Your task to perform on an android device: install app "Microsoft Excel" Image 0: 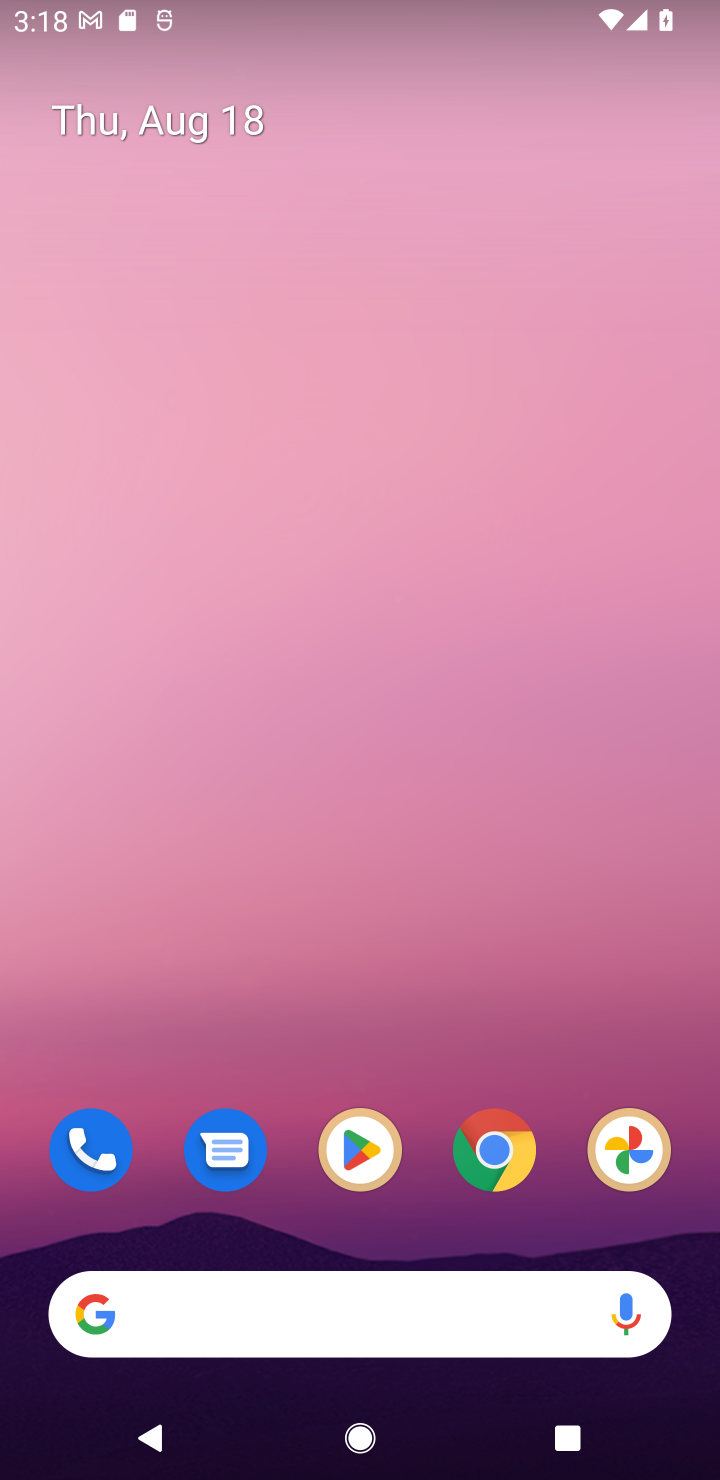
Step 0: click (359, 1144)
Your task to perform on an android device: install app "Microsoft Excel" Image 1: 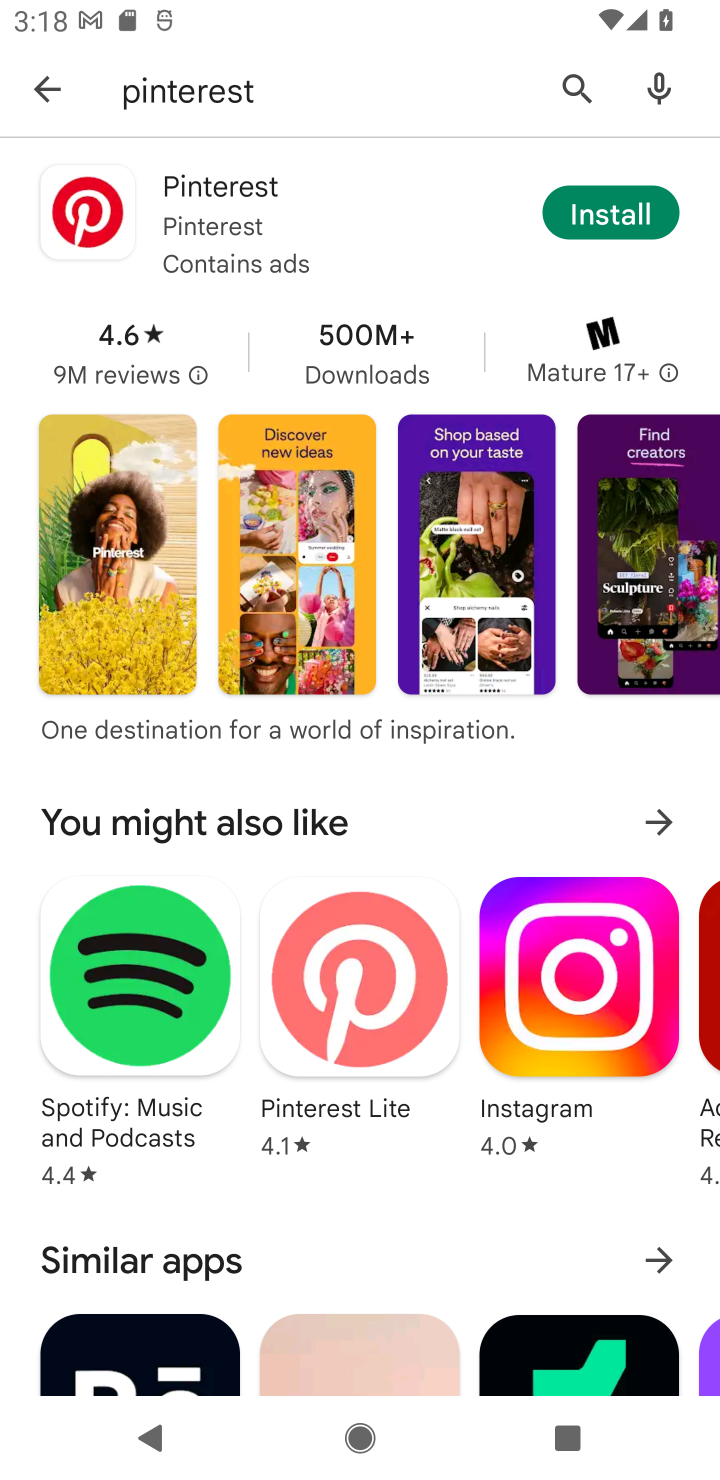
Step 1: click (572, 91)
Your task to perform on an android device: install app "Microsoft Excel" Image 2: 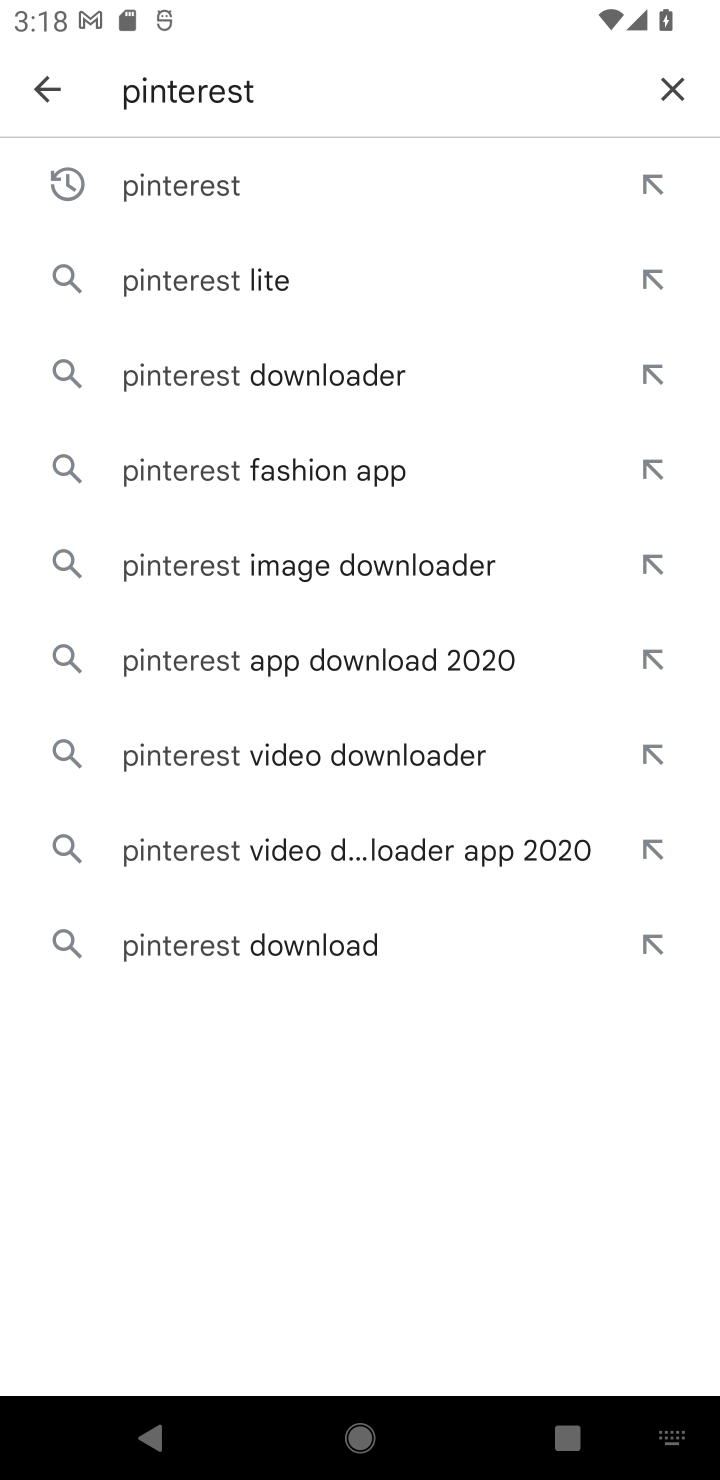
Step 2: click (670, 83)
Your task to perform on an android device: install app "Microsoft Excel" Image 3: 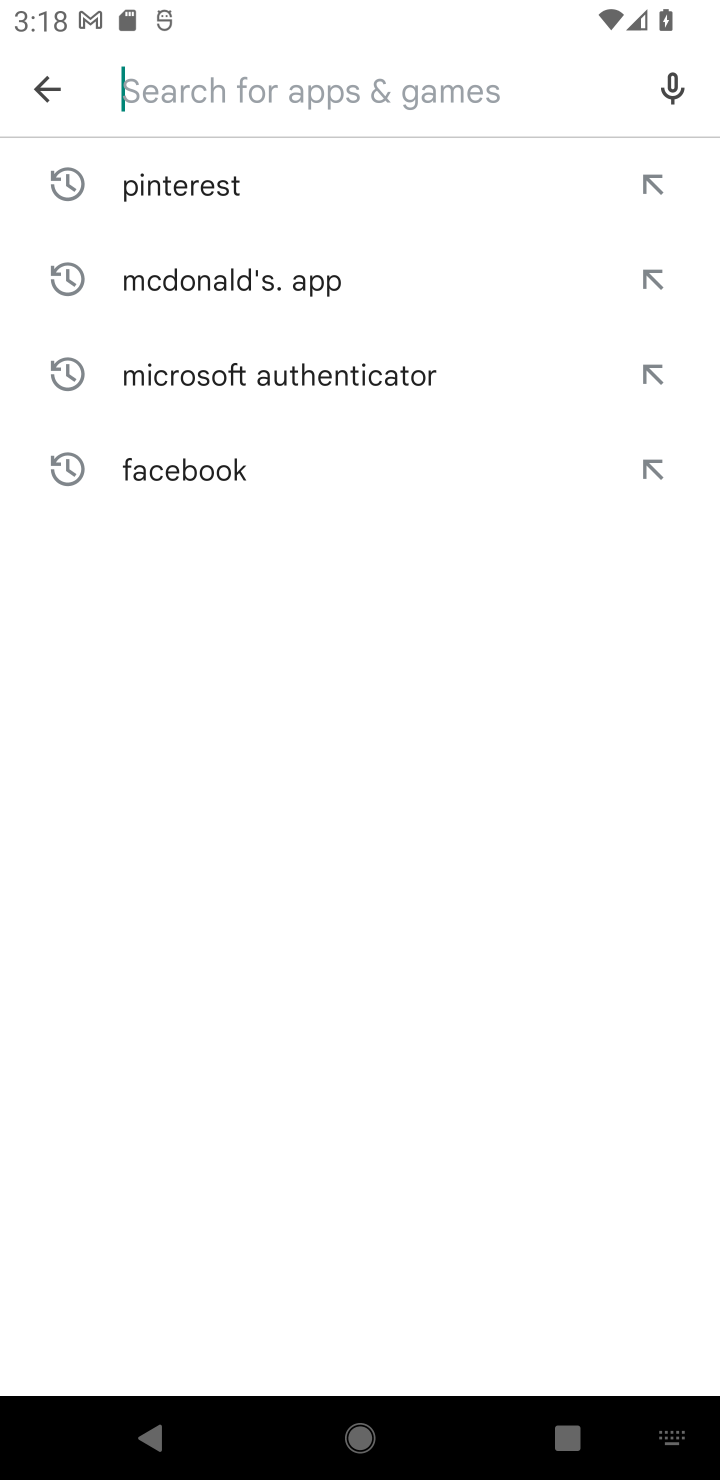
Step 3: type "Microsoft Excel"
Your task to perform on an android device: install app "Microsoft Excel" Image 4: 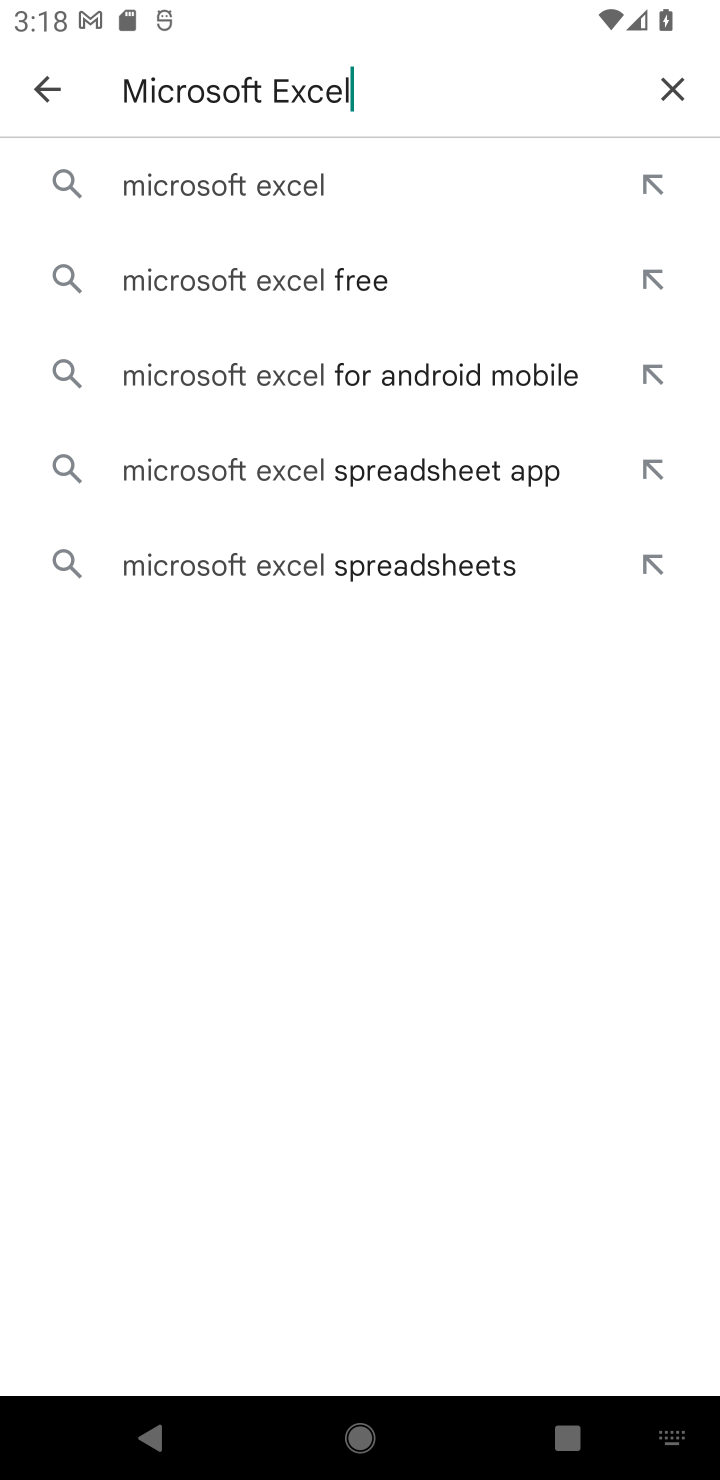
Step 4: click (208, 177)
Your task to perform on an android device: install app "Microsoft Excel" Image 5: 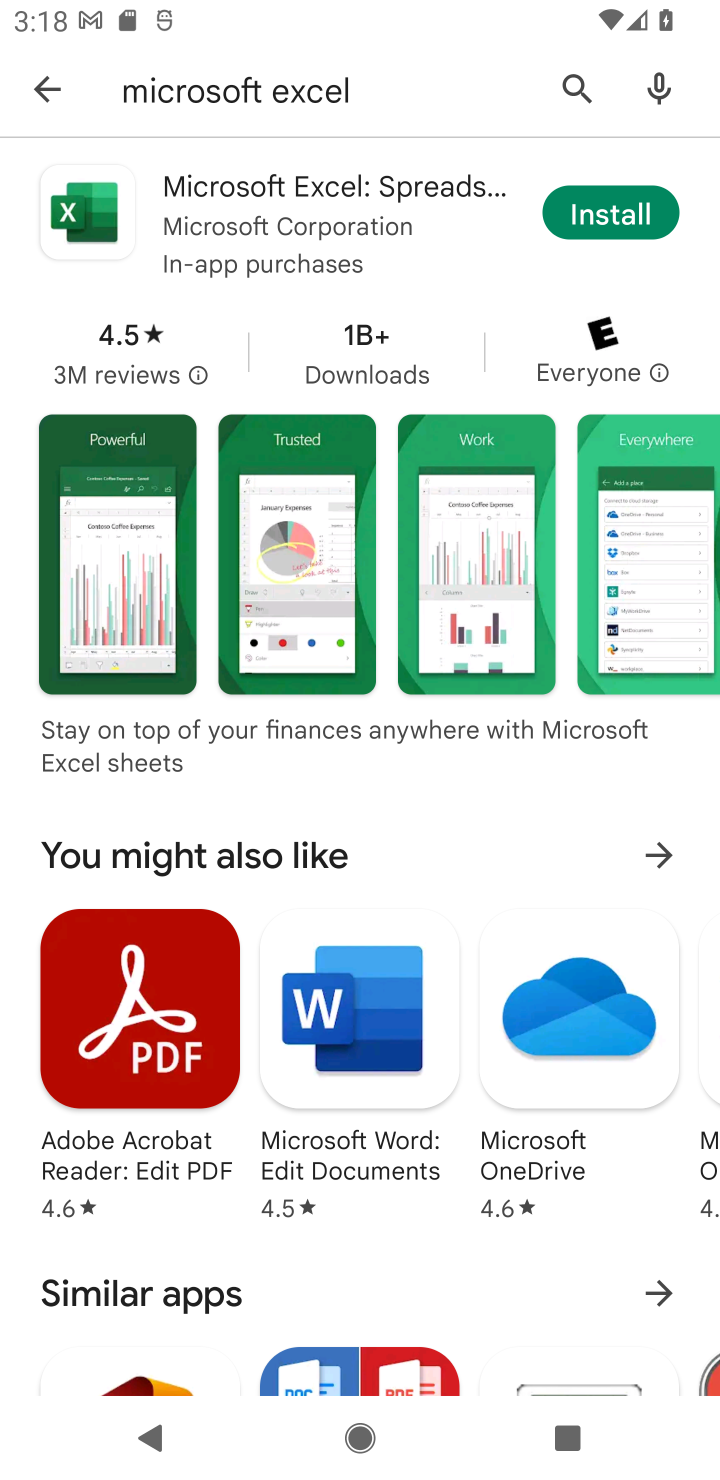
Step 5: click (606, 219)
Your task to perform on an android device: install app "Microsoft Excel" Image 6: 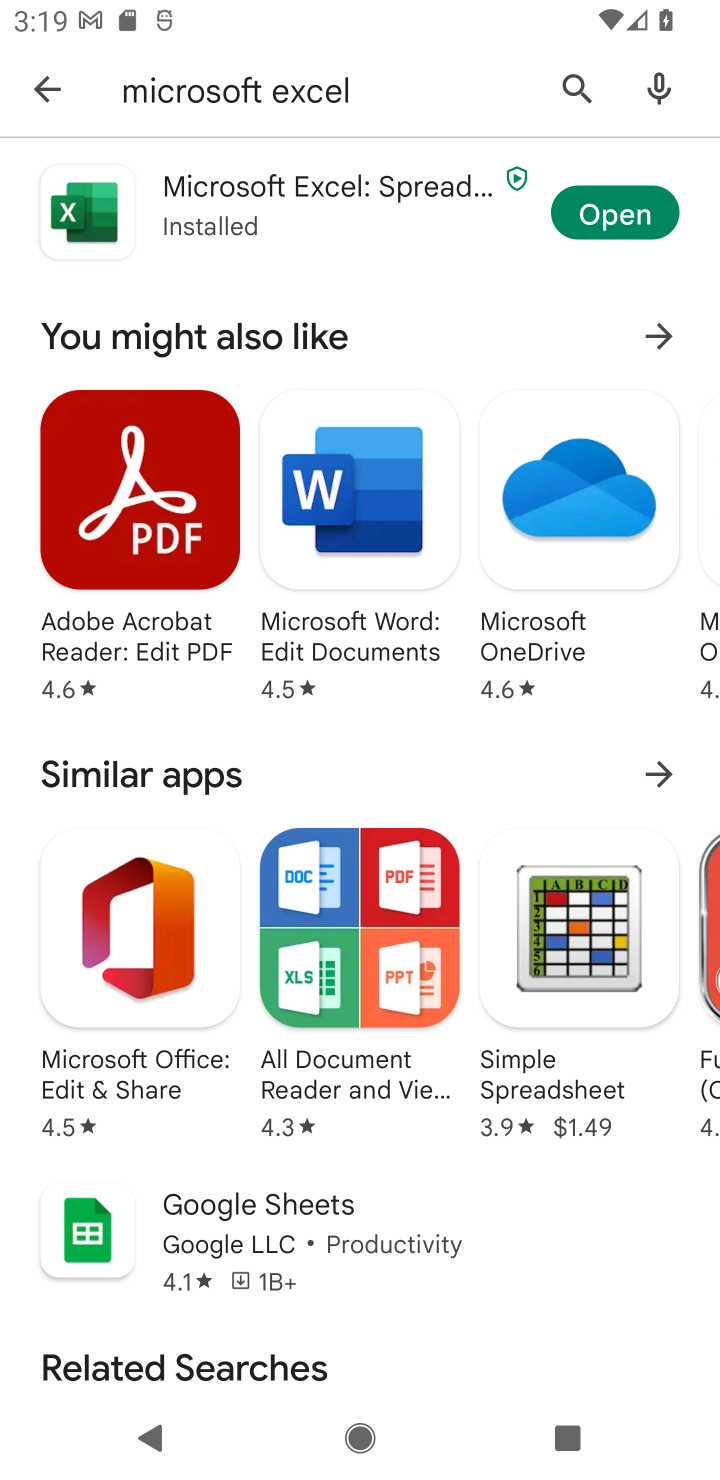
Step 6: task complete